Your task to perform on an android device: star an email in the gmail app Image 0: 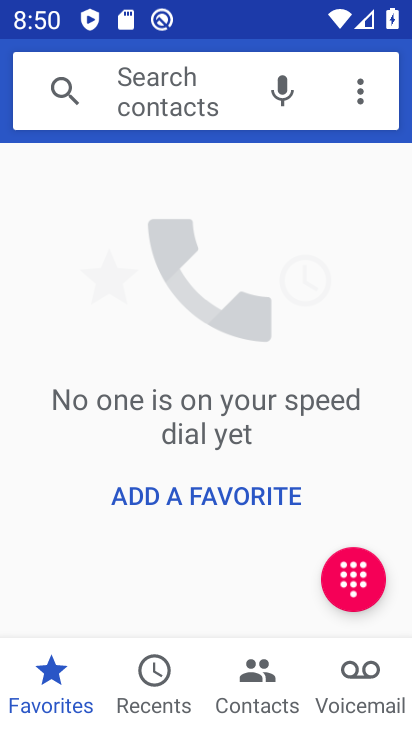
Step 0: press back button
Your task to perform on an android device: star an email in the gmail app Image 1: 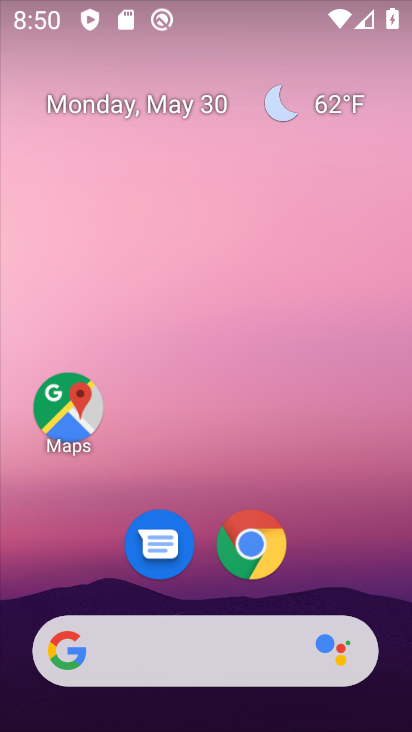
Step 1: drag from (351, 536) to (217, 213)
Your task to perform on an android device: star an email in the gmail app Image 2: 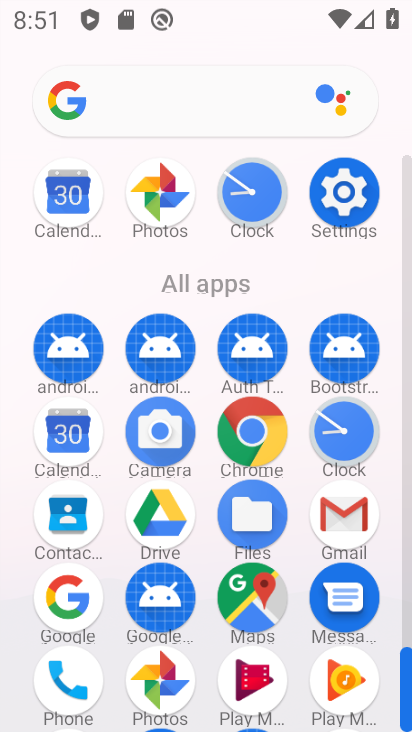
Step 2: click (343, 512)
Your task to perform on an android device: star an email in the gmail app Image 3: 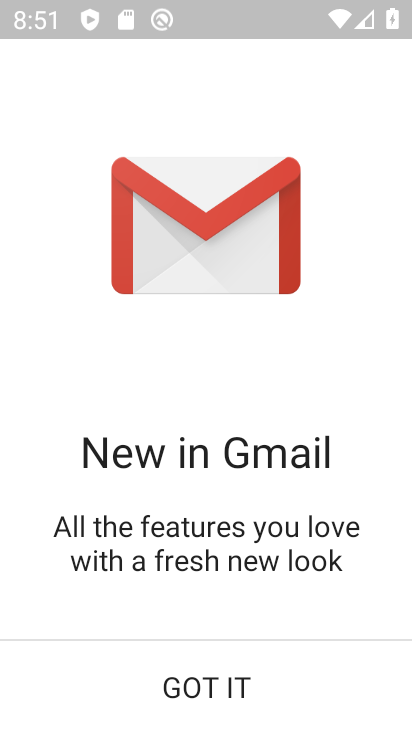
Step 3: click (198, 686)
Your task to perform on an android device: star an email in the gmail app Image 4: 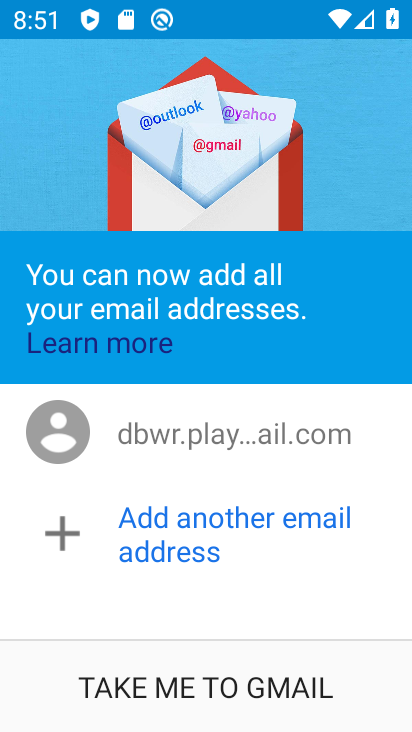
Step 4: click (198, 686)
Your task to perform on an android device: star an email in the gmail app Image 5: 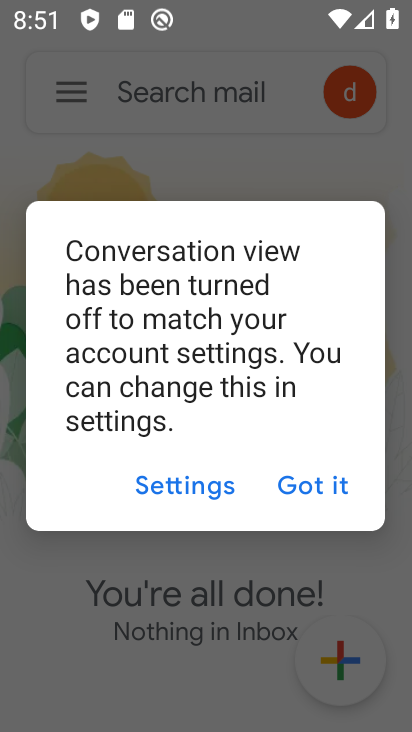
Step 5: click (305, 494)
Your task to perform on an android device: star an email in the gmail app Image 6: 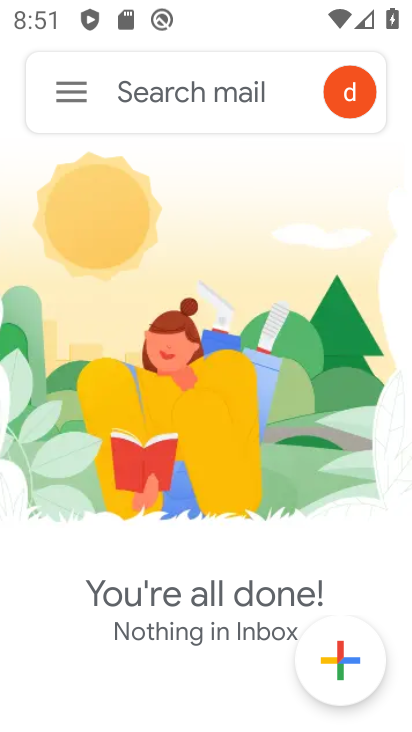
Step 6: click (66, 94)
Your task to perform on an android device: star an email in the gmail app Image 7: 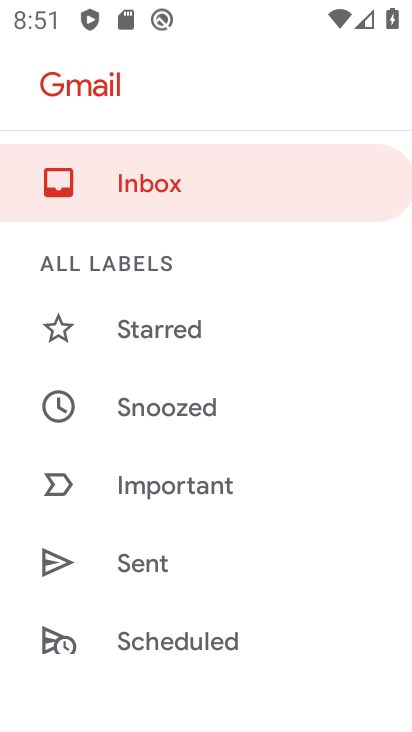
Step 7: drag from (150, 377) to (160, 247)
Your task to perform on an android device: star an email in the gmail app Image 8: 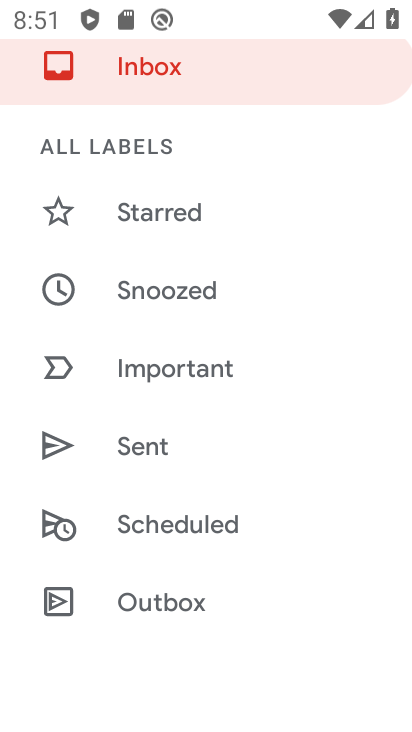
Step 8: drag from (194, 444) to (209, 362)
Your task to perform on an android device: star an email in the gmail app Image 9: 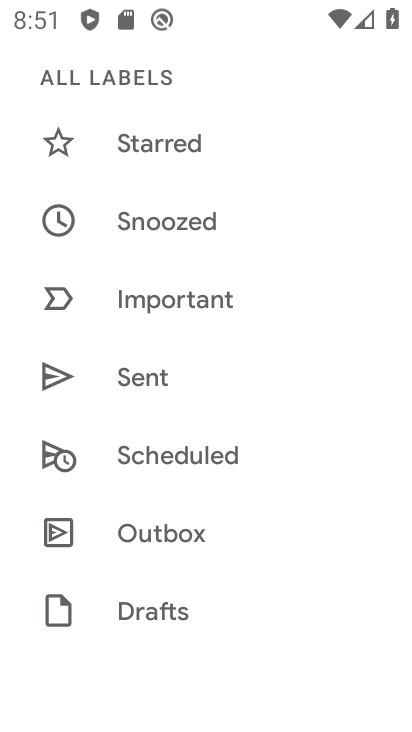
Step 9: drag from (168, 494) to (196, 422)
Your task to perform on an android device: star an email in the gmail app Image 10: 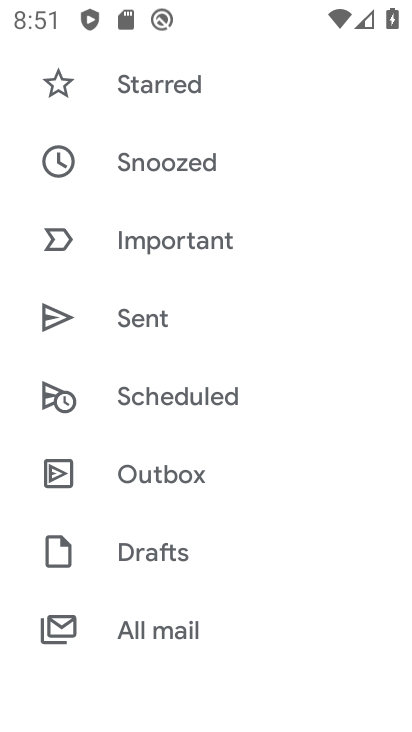
Step 10: drag from (168, 506) to (197, 457)
Your task to perform on an android device: star an email in the gmail app Image 11: 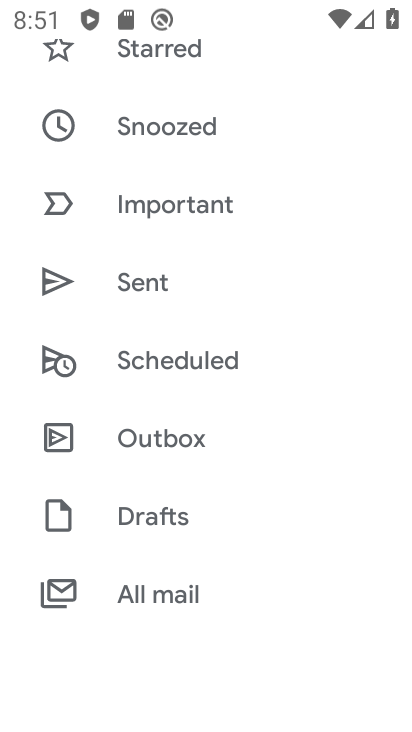
Step 11: click (163, 587)
Your task to perform on an android device: star an email in the gmail app Image 12: 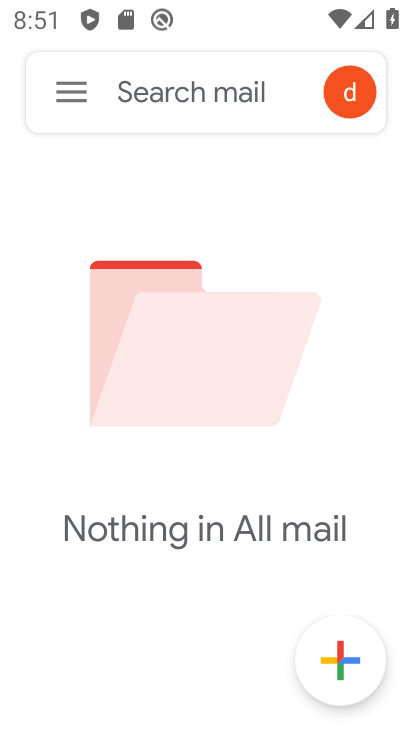
Step 12: click (79, 103)
Your task to perform on an android device: star an email in the gmail app Image 13: 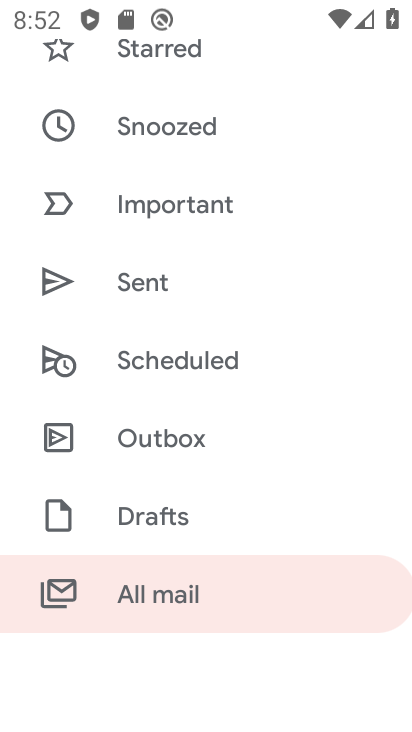
Step 13: drag from (186, 296) to (200, 443)
Your task to perform on an android device: star an email in the gmail app Image 14: 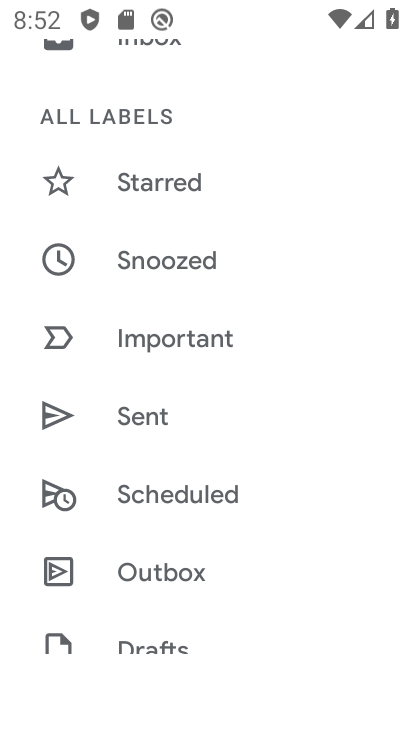
Step 14: drag from (202, 275) to (205, 392)
Your task to perform on an android device: star an email in the gmail app Image 15: 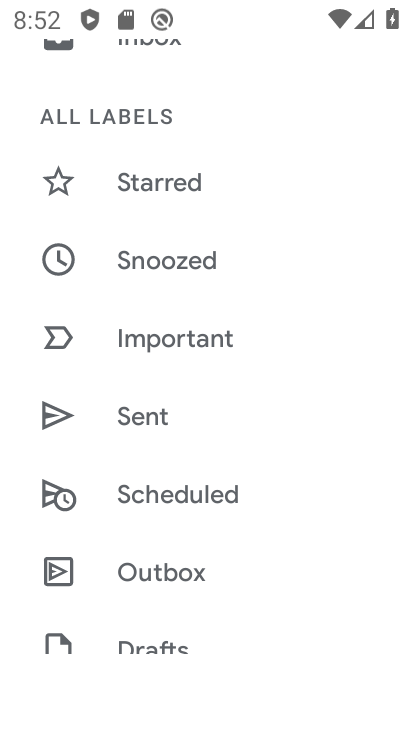
Step 15: drag from (167, 143) to (213, 274)
Your task to perform on an android device: star an email in the gmail app Image 16: 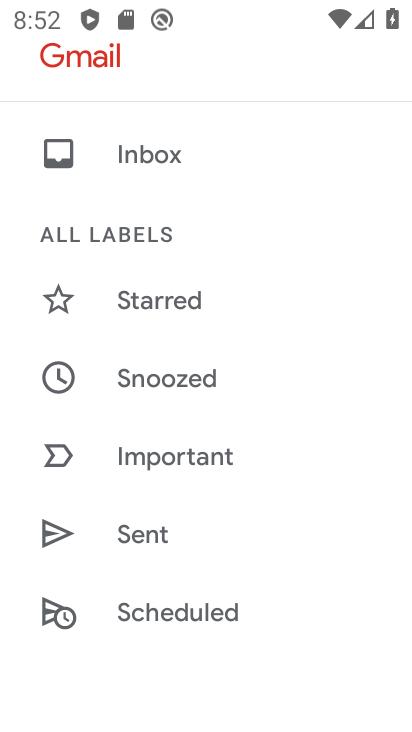
Step 16: click (173, 156)
Your task to perform on an android device: star an email in the gmail app Image 17: 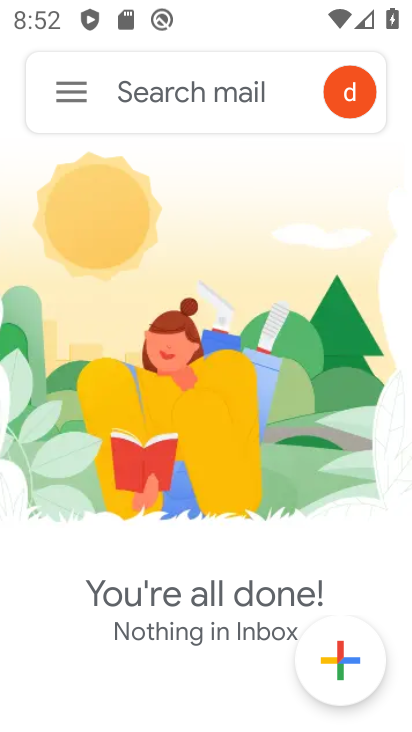
Step 17: task complete